Your task to perform on an android device: Go to location settings Image 0: 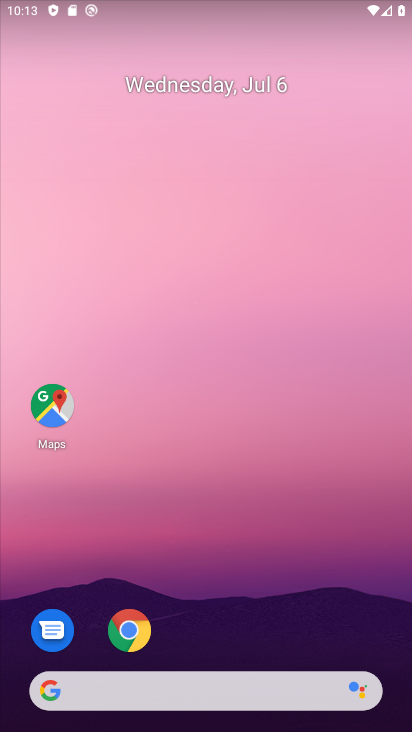
Step 0: drag from (216, 668) to (253, 210)
Your task to perform on an android device: Go to location settings Image 1: 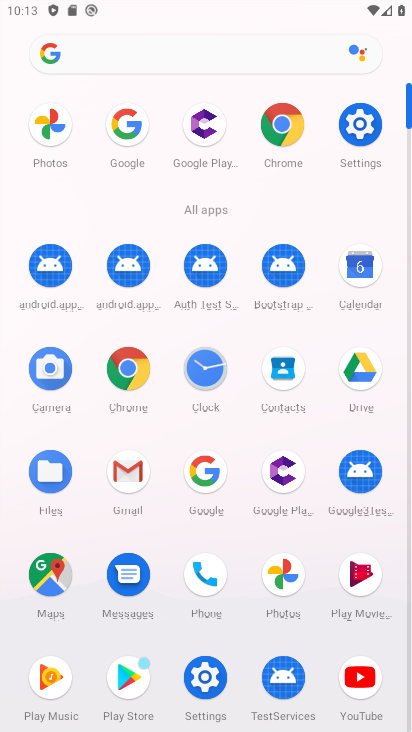
Step 1: click (212, 666)
Your task to perform on an android device: Go to location settings Image 2: 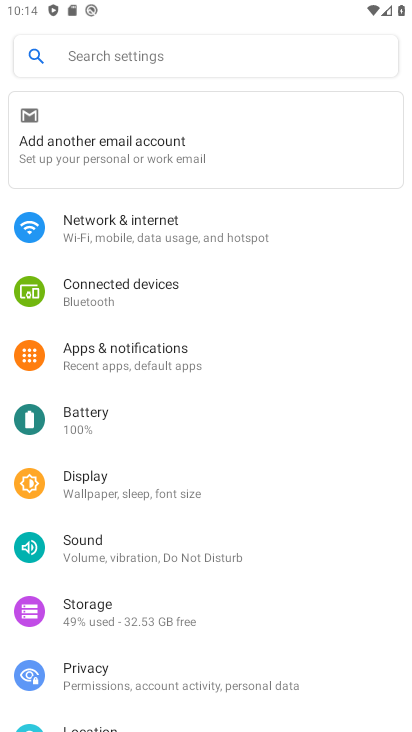
Step 2: drag from (176, 661) to (230, 244)
Your task to perform on an android device: Go to location settings Image 3: 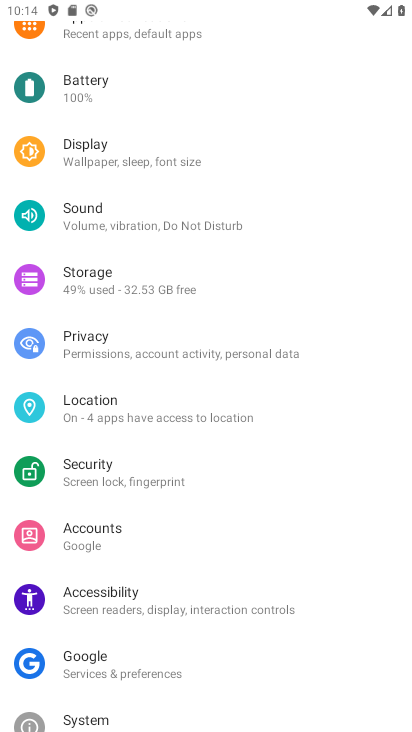
Step 3: click (136, 407)
Your task to perform on an android device: Go to location settings Image 4: 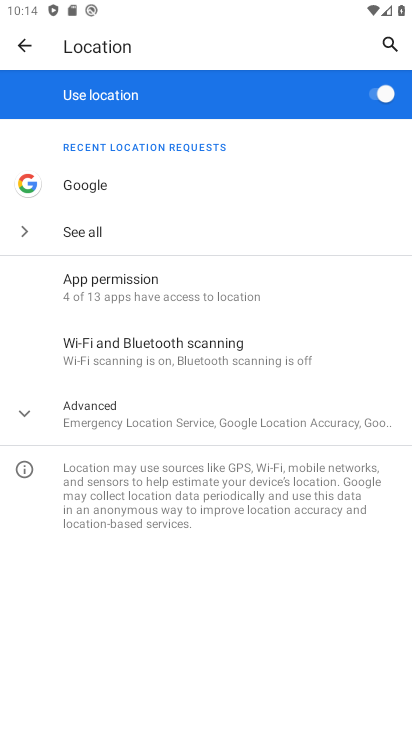
Step 4: task complete